Your task to perform on an android device: uninstall "Airtel Thanks" Image 0: 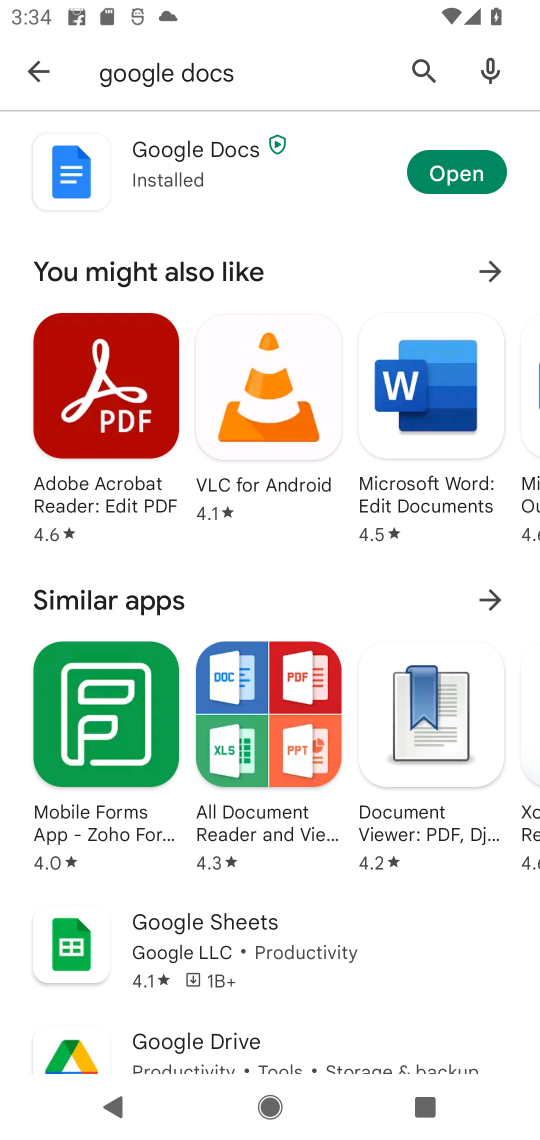
Step 0: press home button
Your task to perform on an android device: uninstall "Airtel Thanks" Image 1: 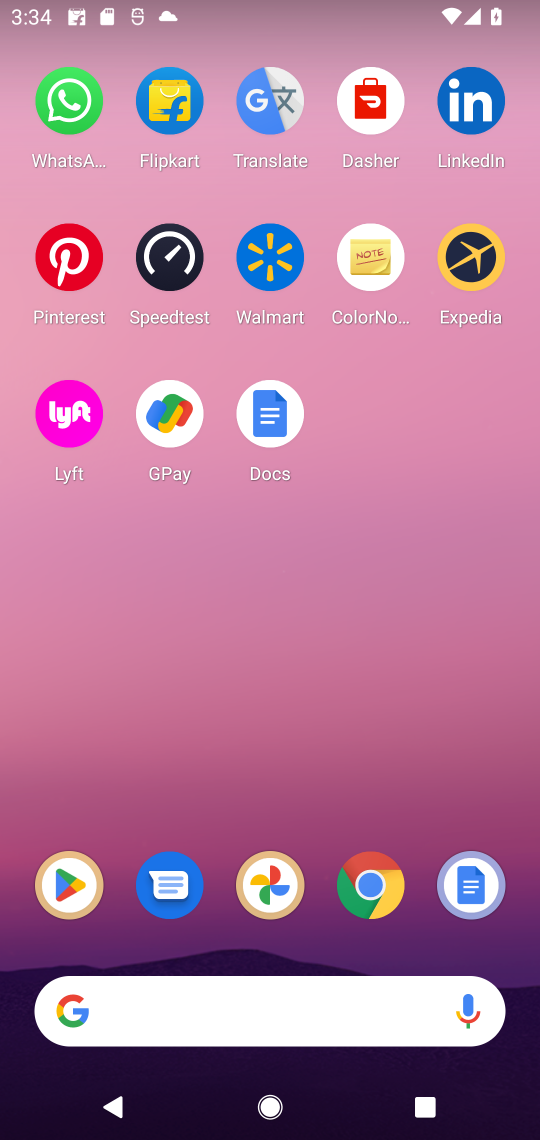
Step 1: click (74, 908)
Your task to perform on an android device: uninstall "Airtel Thanks" Image 2: 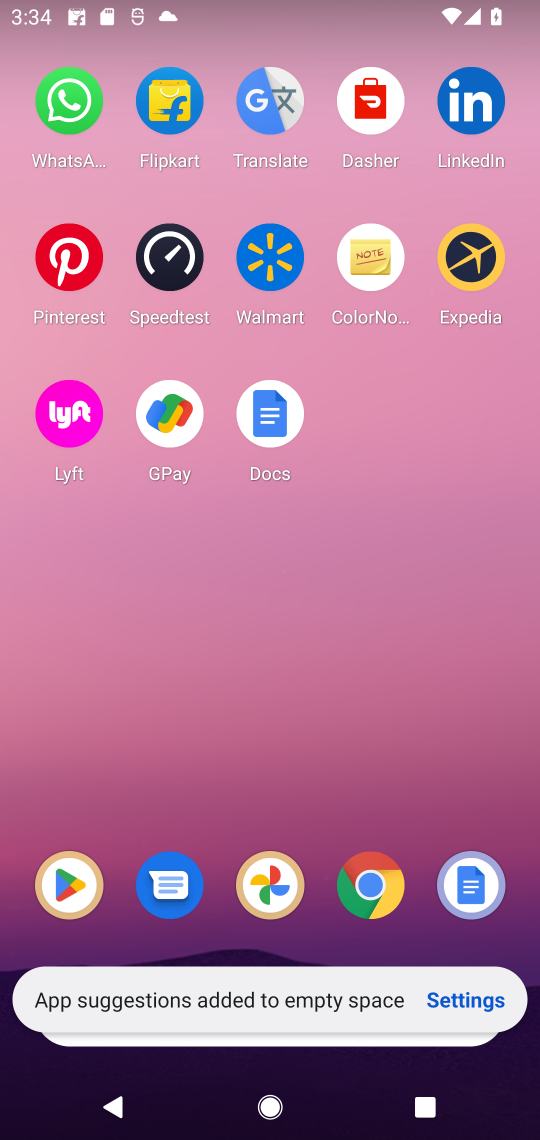
Step 2: click (75, 899)
Your task to perform on an android device: uninstall "Airtel Thanks" Image 3: 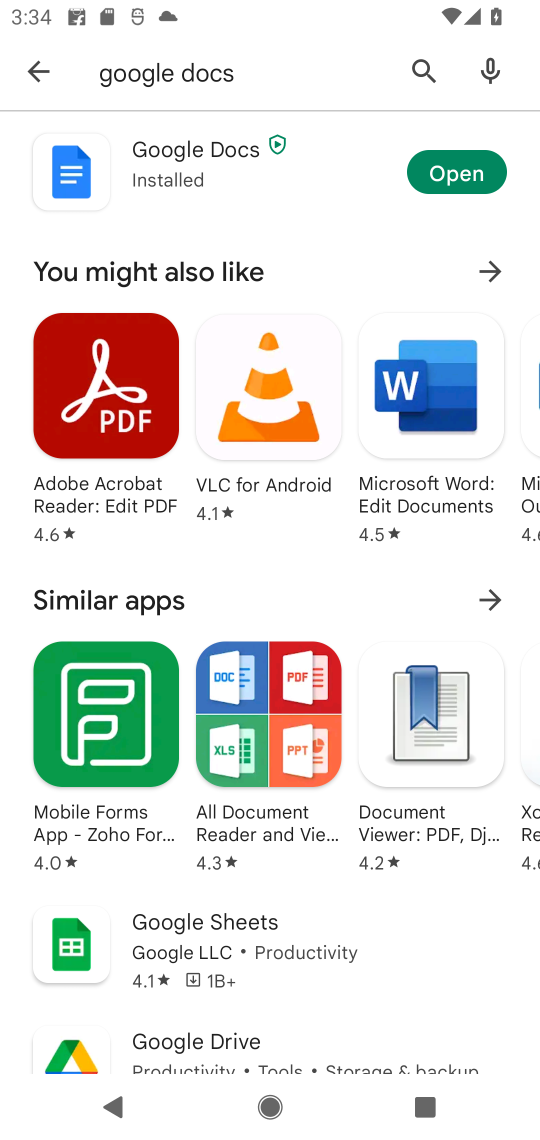
Step 3: click (430, 87)
Your task to perform on an android device: uninstall "Airtel Thanks" Image 4: 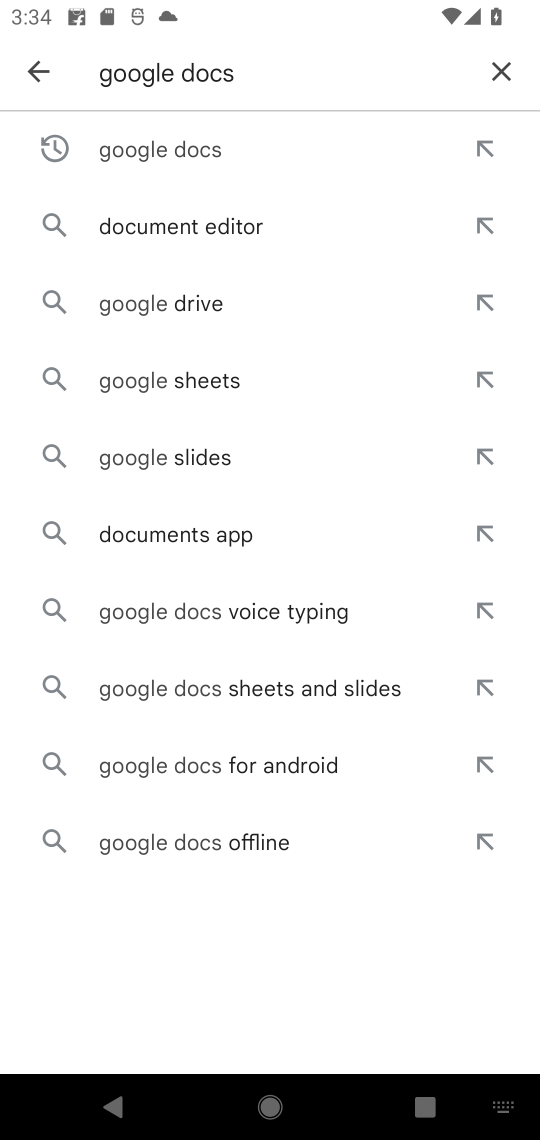
Step 4: click (504, 67)
Your task to perform on an android device: uninstall "Airtel Thanks" Image 5: 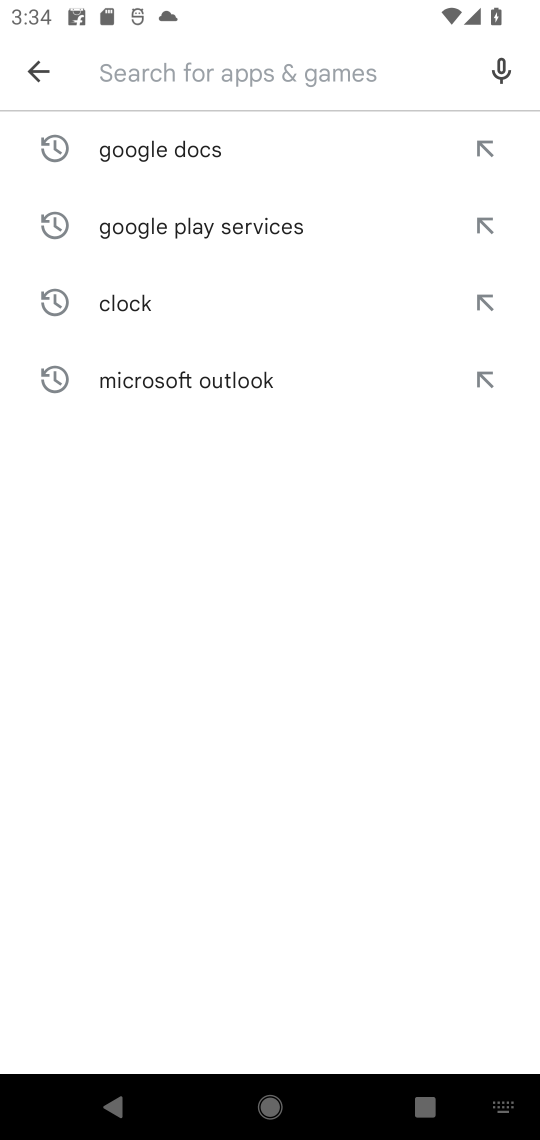
Step 5: type "Airtel Thanks"
Your task to perform on an android device: uninstall "Airtel Thanks" Image 6: 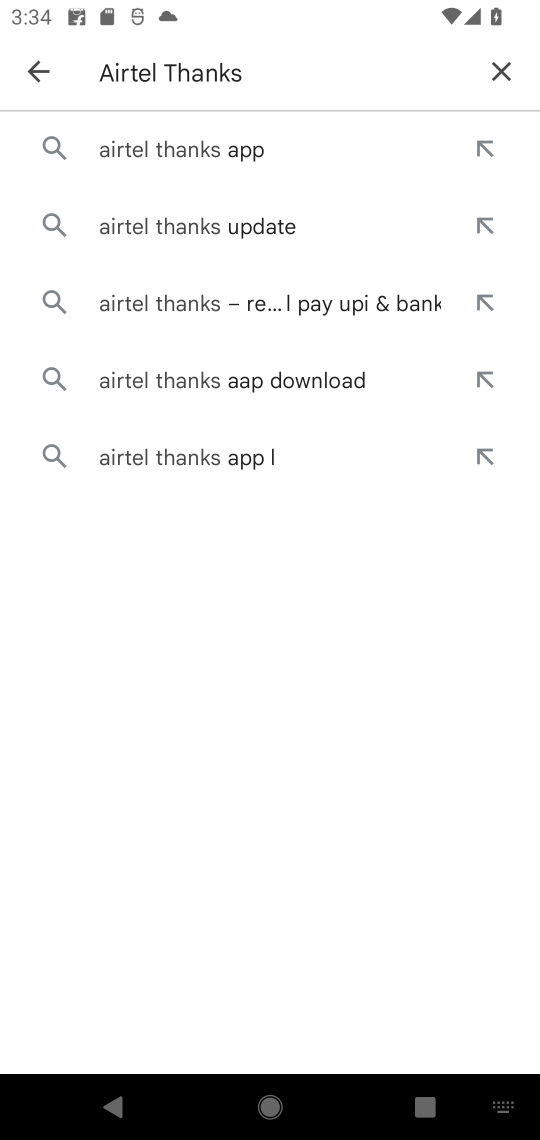
Step 6: click (188, 158)
Your task to perform on an android device: uninstall "Airtel Thanks" Image 7: 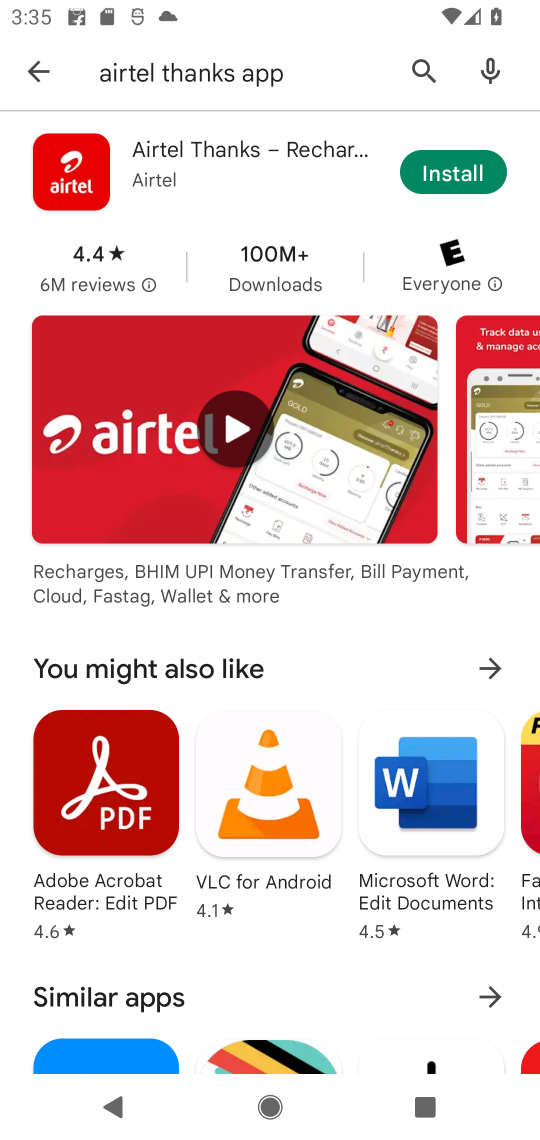
Step 7: task complete